Your task to perform on an android device: Open the web browser Image 0: 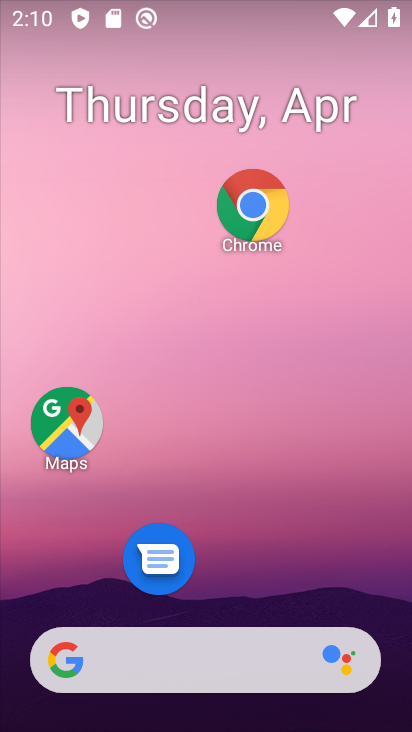
Step 0: drag from (226, 621) to (321, 3)
Your task to perform on an android device: Open the web browser Image 1: 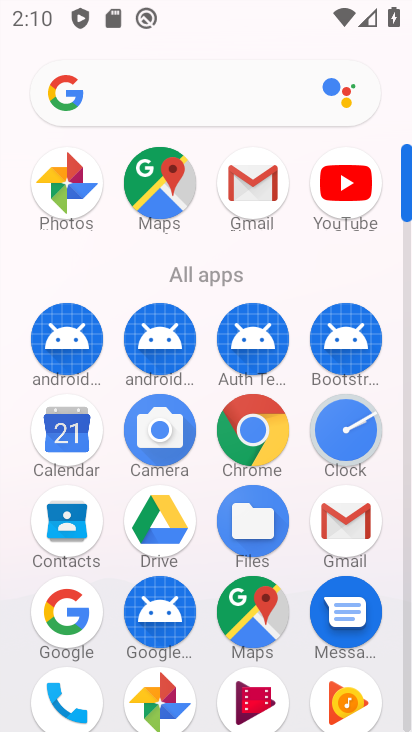
Step 1: click (81, 592)
Your task to perform on an android device: Open the web browser Image 2: 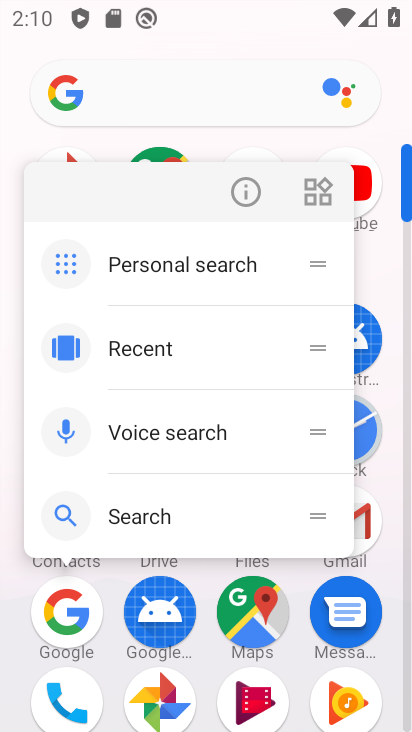
Step 2: click (81, 605)
Your task to perform on an android device: Open the web browser Image 3: 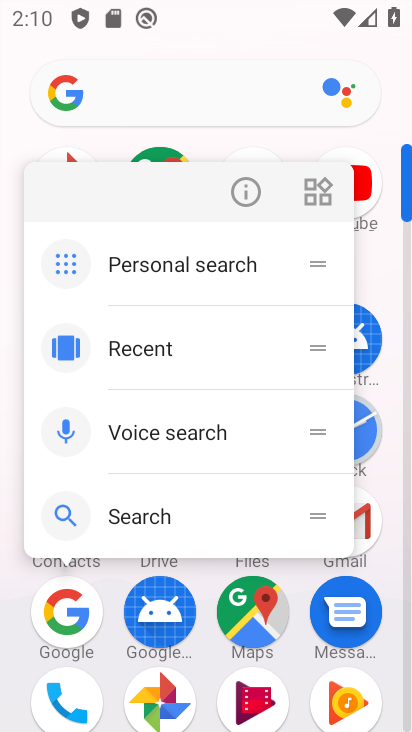
Step 3: click (76, 608)
Your task to perform on an android device: Open the web browser Image 4: 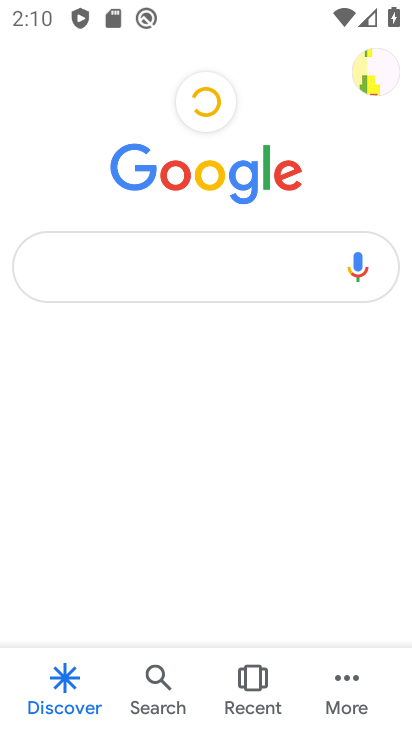
Step 4: click (197, 253)
Your task to perform on an android device: Open the web browser Image 5: 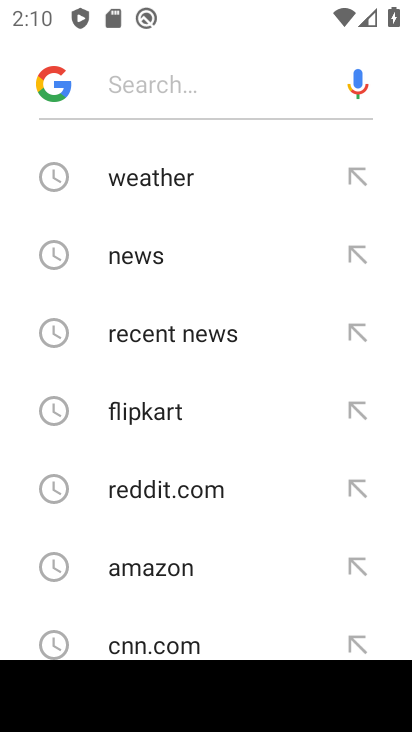
Step 5: task complete